Your task to perform on an android device: read, delete, or share a saved page in the chrome app Image 0: 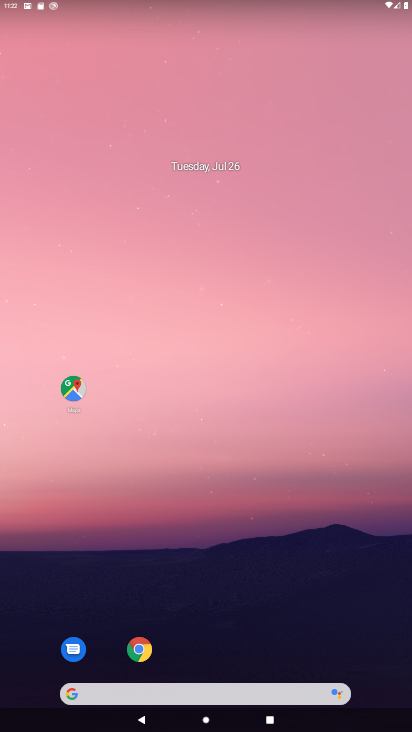
Step 0: click (245, 287)
Your task to perform on an android device: read, delete, or share a saved page in the chrome app Image 1: 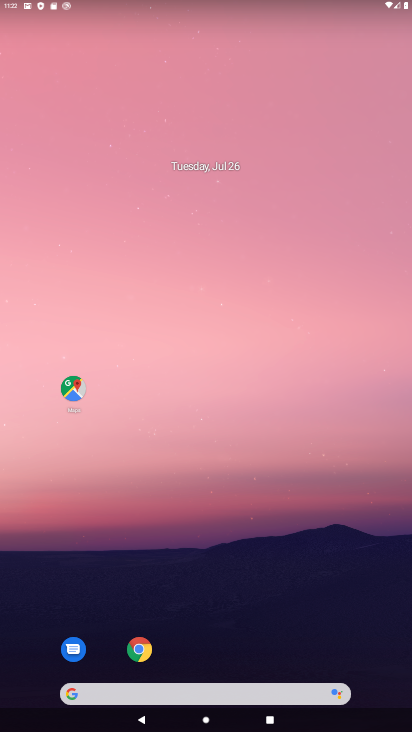
Step 1: drag from (274, 639) to (272, 91)
Your task to perform on an android device: read, delete, or share a saved page in the chrome app Image 2: 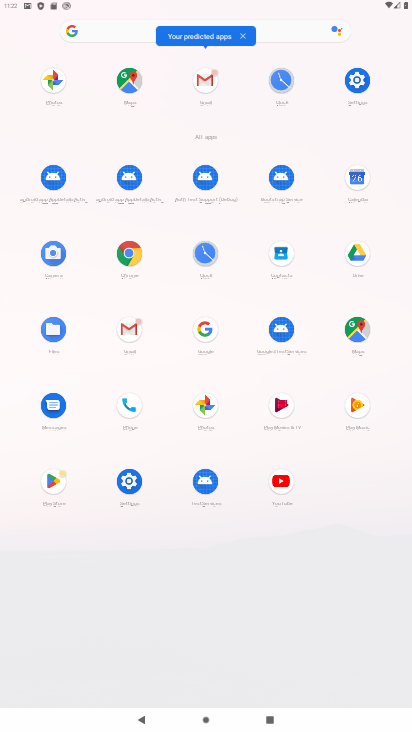
Step 2: click (125, 249)
Your task to perform on an android device: read, delete, or share a saved page in the chrome app Image 3: 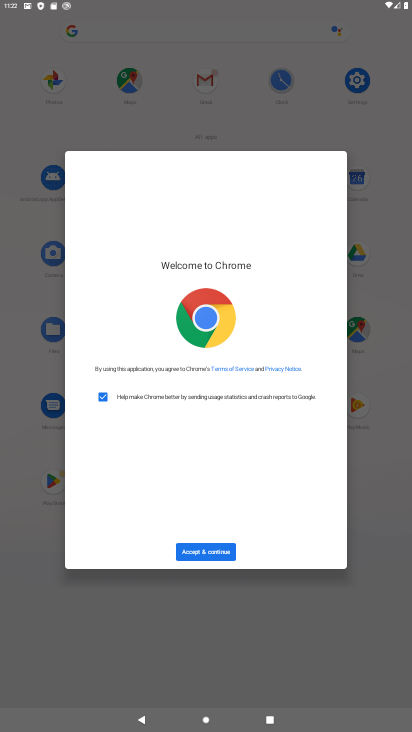
Step 3: click (207, 546)
Your task to perform on an android device: read, delete, or share a saved page in the chrome app Image 4: 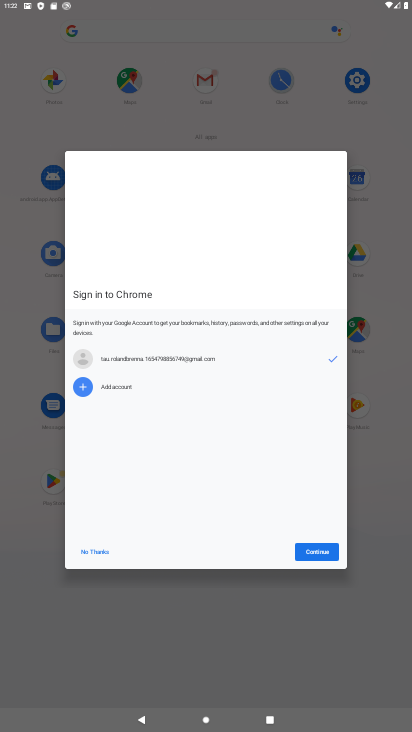
Step 4: click (302, 548)
Your task to perform on an android device: read, delete, or share a saved page in the chrome app Image 5: 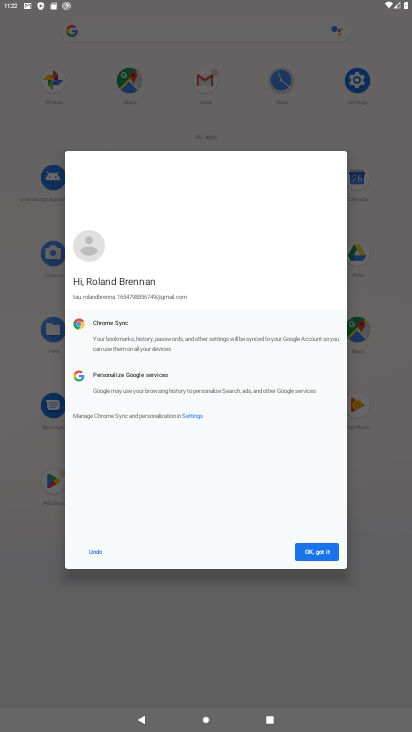
Step 5: click (302, 548)
Your task to perform on an android device: read, delete, or share a saved page in the chrome app Image 6: 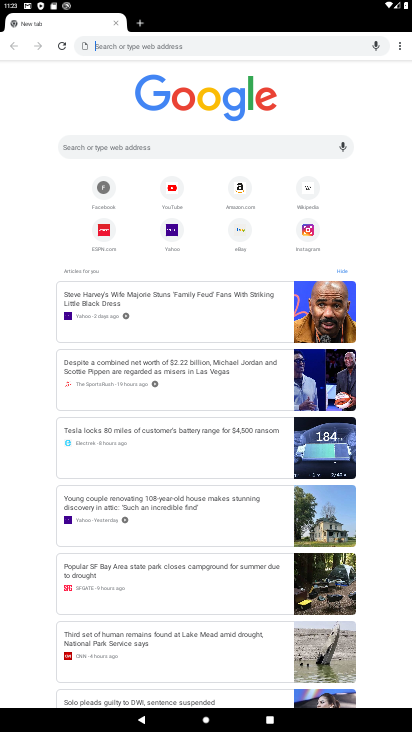
Step 6: drag from (398, 45) to (291, 210)
Your task to perform on an android device: read, delete, or share a saved page in the chrome app Image 7: 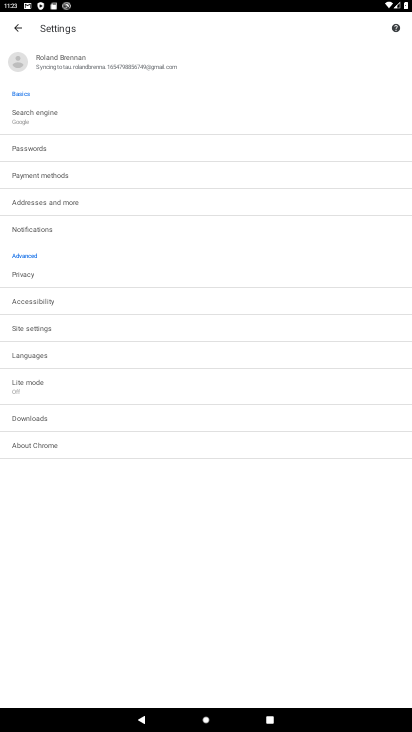
Step 7: click (17, 26)
Your task to perform on an android device: read, delete, or share a saved page in the chrome app Image 8: 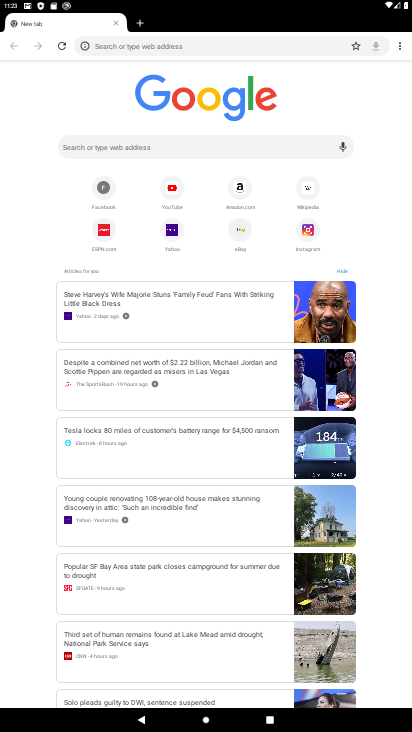
Step 8: drag from (402, 38) to (303, 166)
Your task to perform on an android device: read, delete, or share a saved page in the chrome app Image 9: 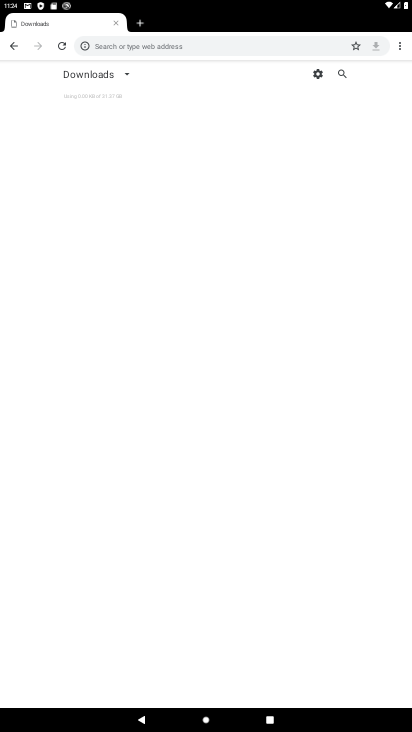
Step 9: click (127, 74)
Your task to perform on an android device: read, delete, or share a saved page in the chrome app Image 10: 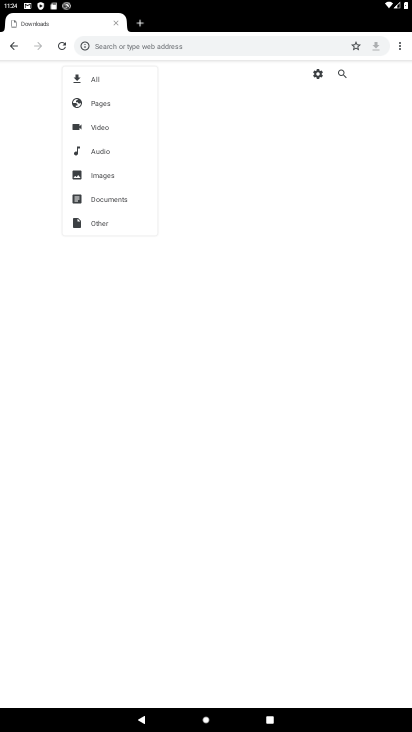
Step 10: click (119, 101)
Your task to perform on an android device: read, delete, or share a saved page in the chrome app Image 11: 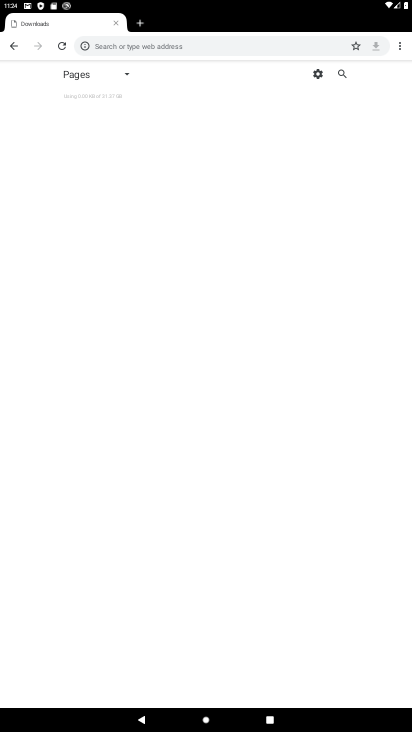
Step 11: task complete